Your task to perform on an android device: Open sound settings Image 0: 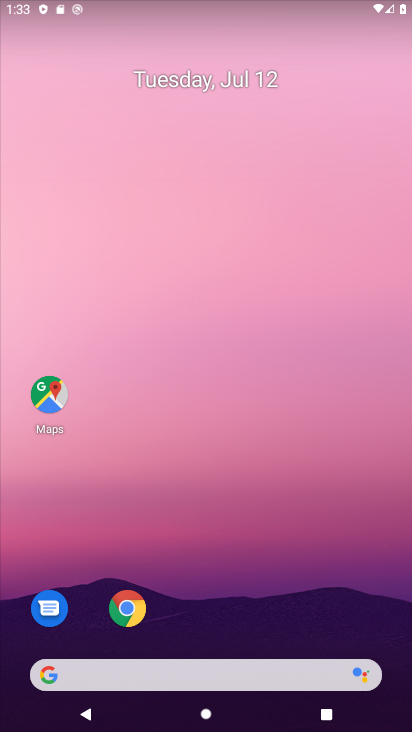
Step 0: drag from (294, 613) to (186, 188)
Your task to perform on an android device: Open sound settings Image 1: 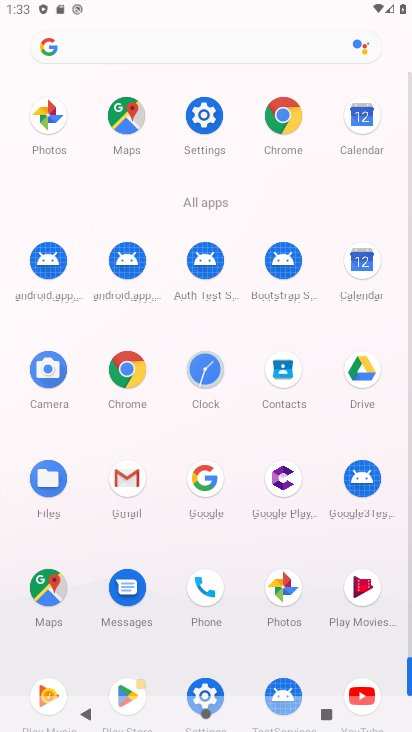
Step 1: drag from (238, 641) to (229, 445)
Your task to perform on an android device: Open sound settings Image 2: 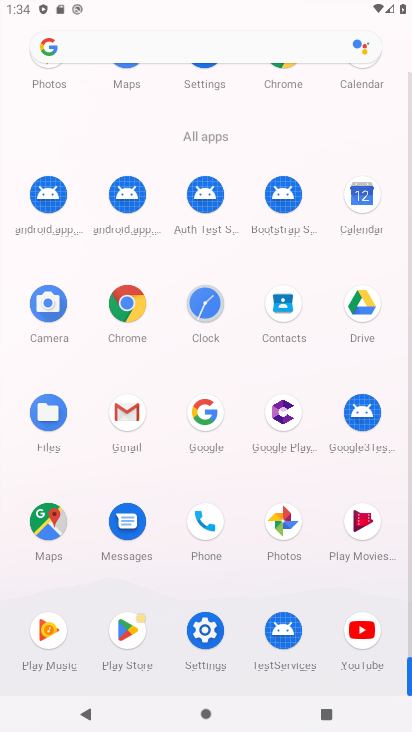
Step 2: click (204, 632)
Your task to perform on an android device: Open sound settings Image 3: 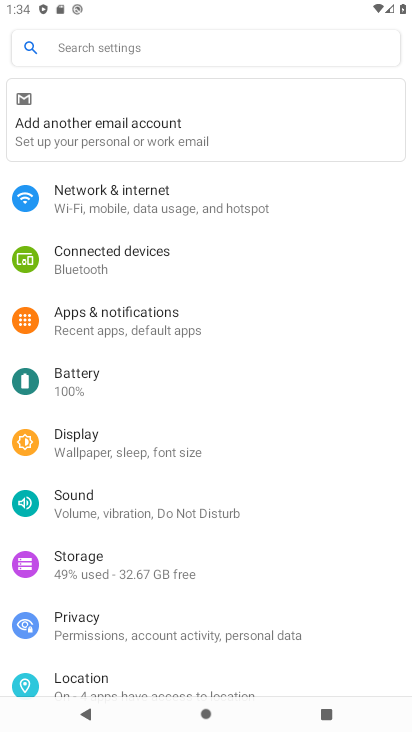
Step 3: drag from (218, 651) to (144, 335)
Your task to perform on an android device: Open sound settings Image 4: 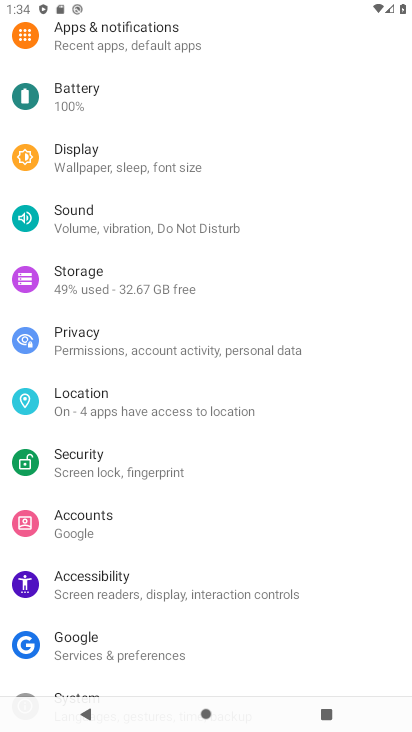
Step 4: click (97, 222)
Your task to perform on an android device: Open sound settings Image 5: 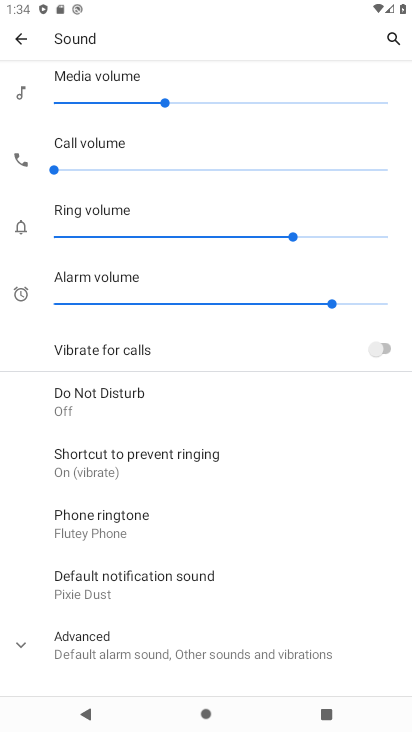
Step 5: task complete